Your task to perform on an android device: clear history in the chrome app Image 0: 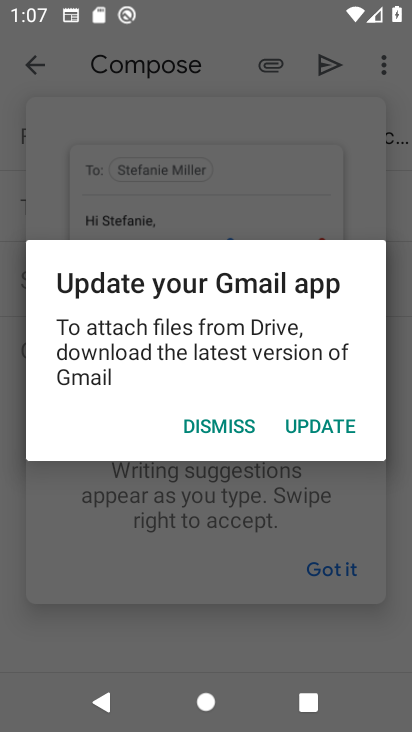
Step 0: press home button
Your task to perform on an android device: clear history in the chrome app Image 1: 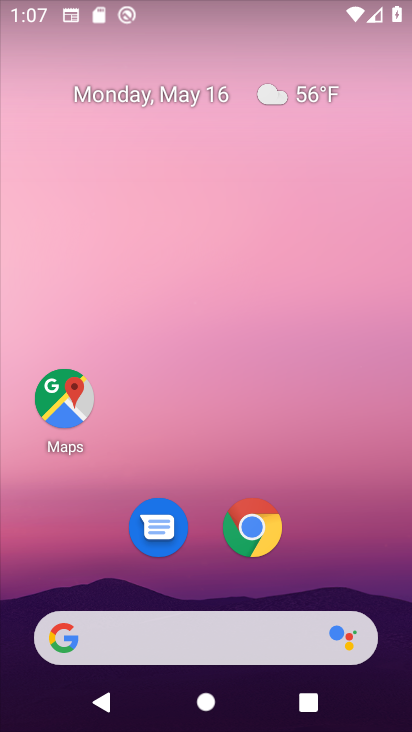
Step 1: drag from (183, 643) to (176, 192)
Your task to perform on an android device: clear history in the chrome app Image 2: 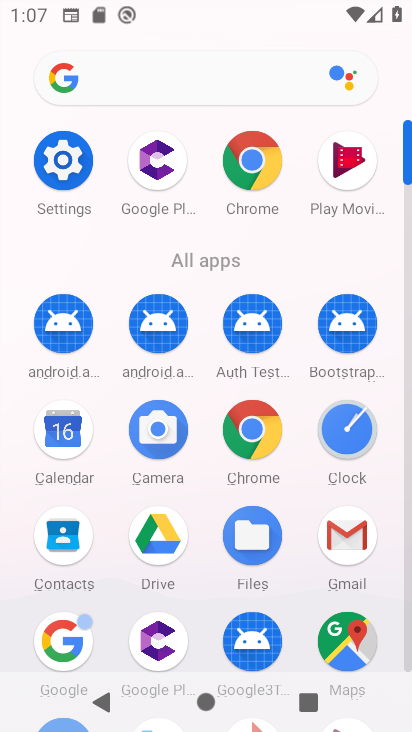
Step 2: click (260, 450)
Your task to perform on an android device: clear history in the chrome app Image 3: 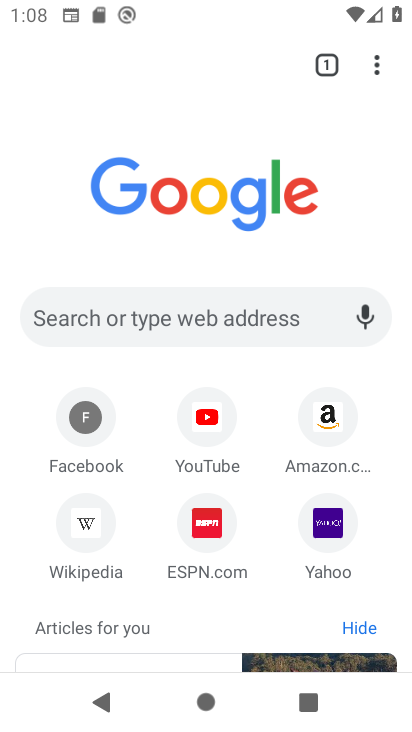
Step 3: task complete